Your task to perform on an android device: Open maps Image 0: 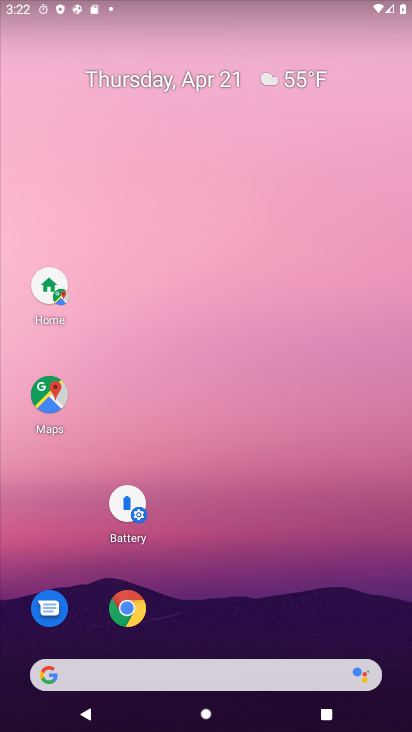
Step 0: click (51, 400)
Your task to perform on an android device: Open maps Image 1: 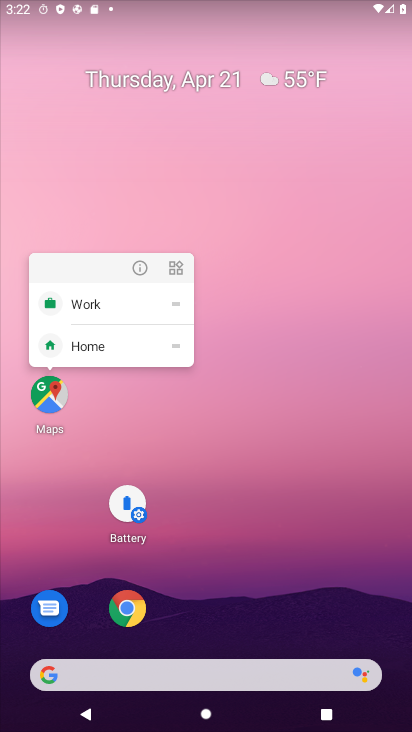
Step 1: click (51, 399)
Your task to perform on an android device: Open maps Image 2: 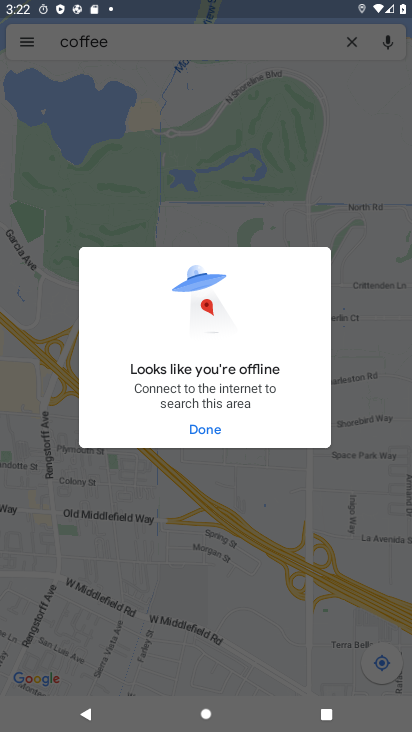
Step 2: click (213, 432)
Your task to perform on an android device: Open maps Image 3: 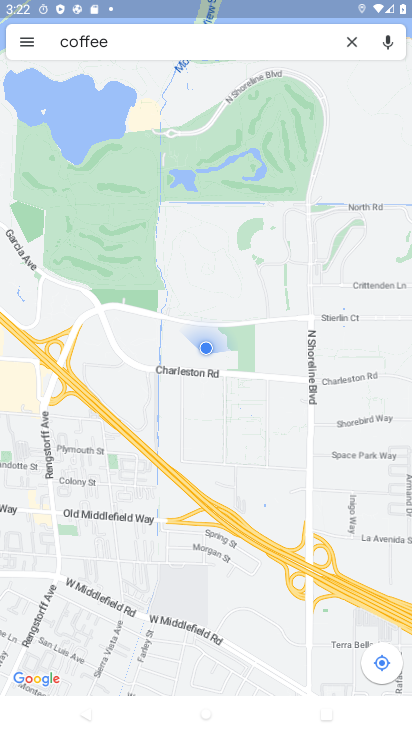
Step 3: task complete